Your task to perform on an android device: set an alarm Image 0: 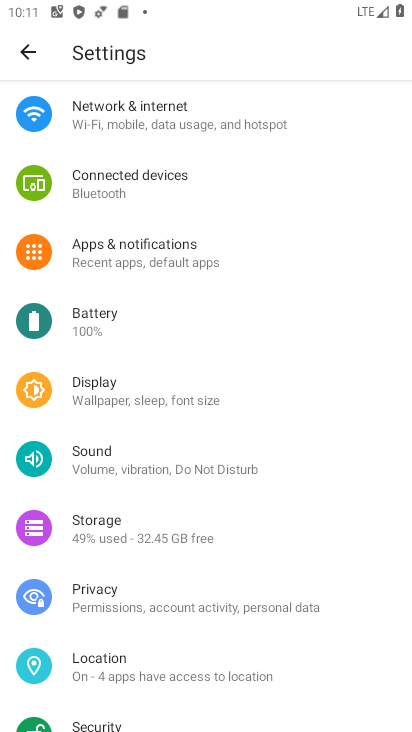
Step 0: press home button
Your task to perform on an android device: set an alarm Image 1: 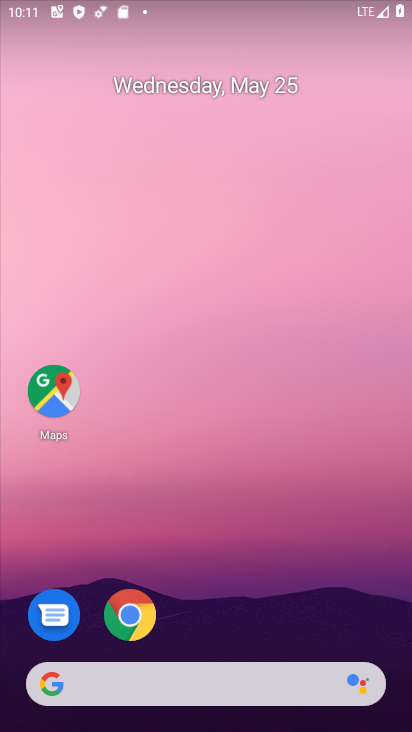
Step 1: drag from (220, 548) to (240, 38)
Your task to perform on an android device: set an alarm Image 2: 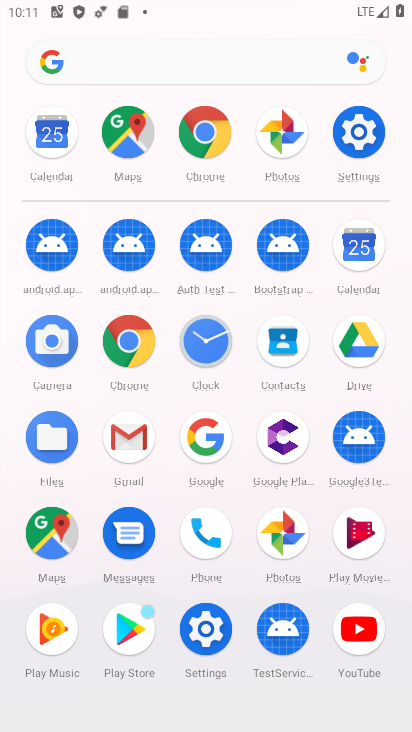
Step 2: click (212, 349)
Your task to perform on an android device: set an alarm Image 3: 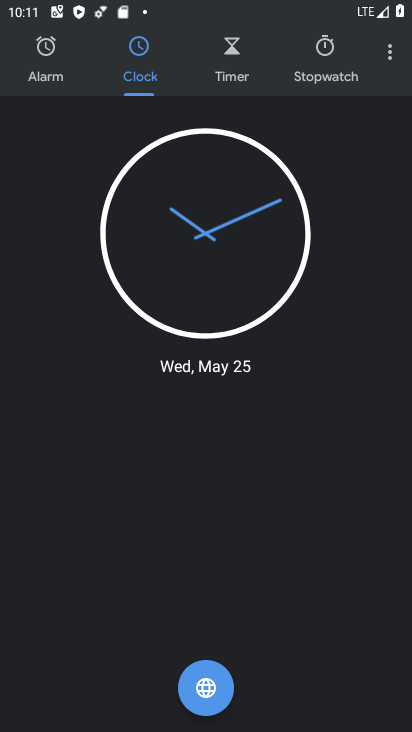
Step 3: click (43, 66)
Your task to perform on an android device: set an alarm Image 4: 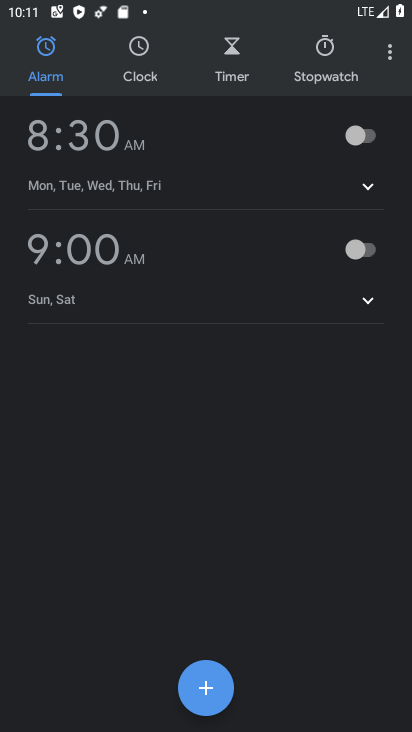
Step 4: click (206, 679)
Your task to perform on an android device: set an alarm Image 5: 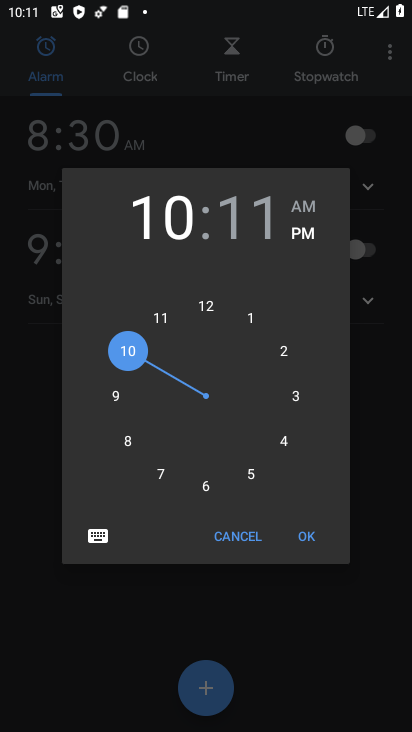
Step 5: click (237, 207)
Your task to perform on an android device: set an alarm Image 6: 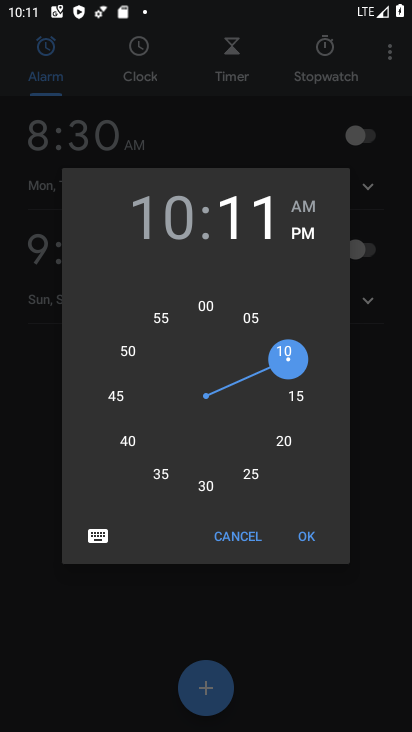
Step 6: click (202, 492)
Your task to perform on an android device: set an alarm Image 7: 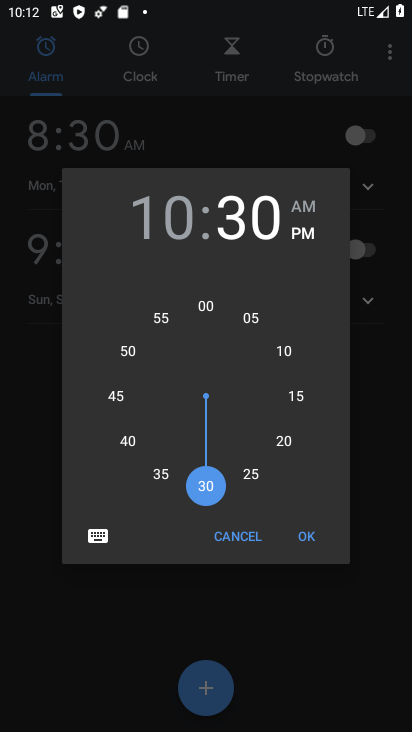
Step 7: click (311, 202)
Your task to perform on an android device: set an alarm Image 8: 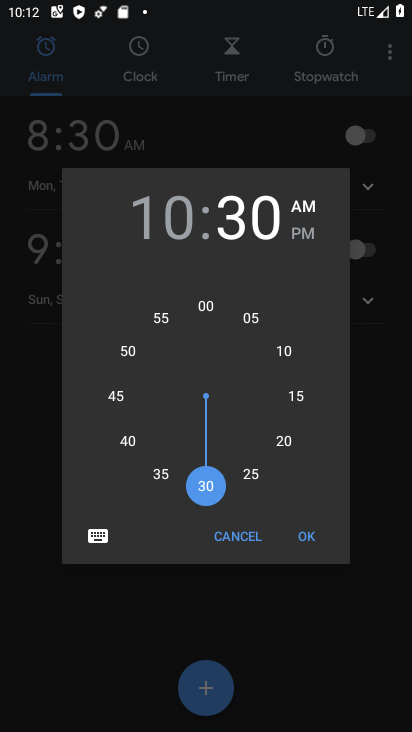
Step 8: click (303, 536)
Your task to perform on an android device: set an alarm Image 9: 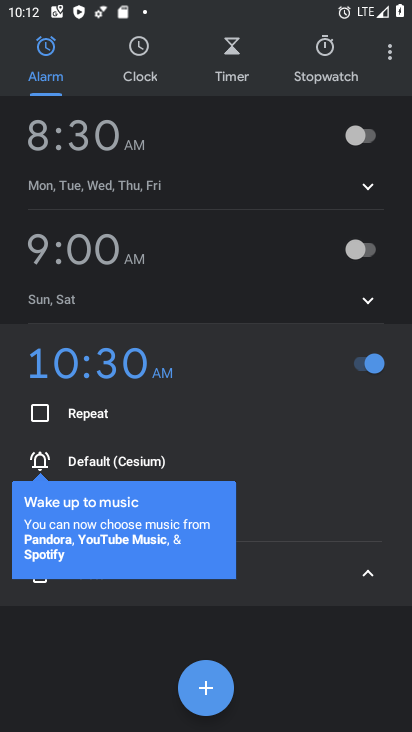
Step 9: task complete